Your task to perform on an android device: Open Maps and search for coffee Image 0: 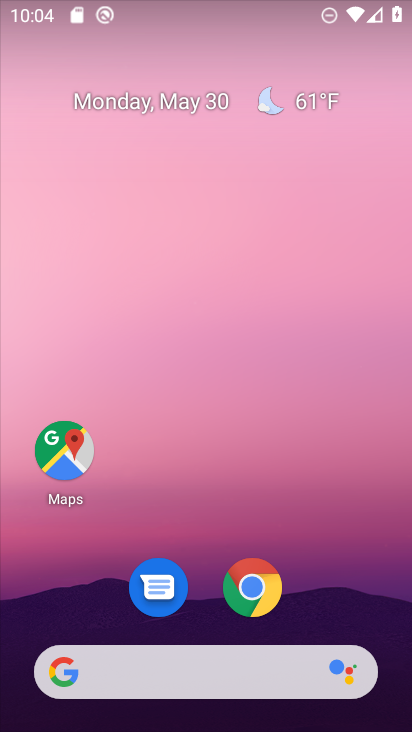
Step 0: drag from (235, 636) to (157, 42)
Your task to perform on an android device: Open Maps and search for coffee Image 1: 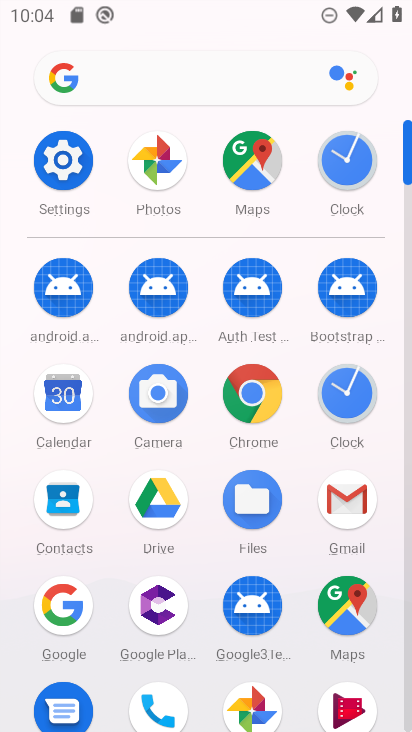
Step 1: click (356, 594)
Your task to perform on an android device: Open Maps and search for coffee Image 2: 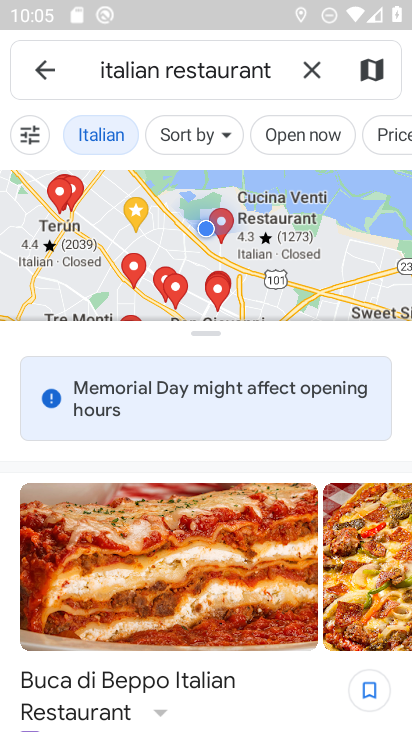
Step 2: click (309, 65)
Your task to perform on an android device: Open Maps and search for coffee Image 3: 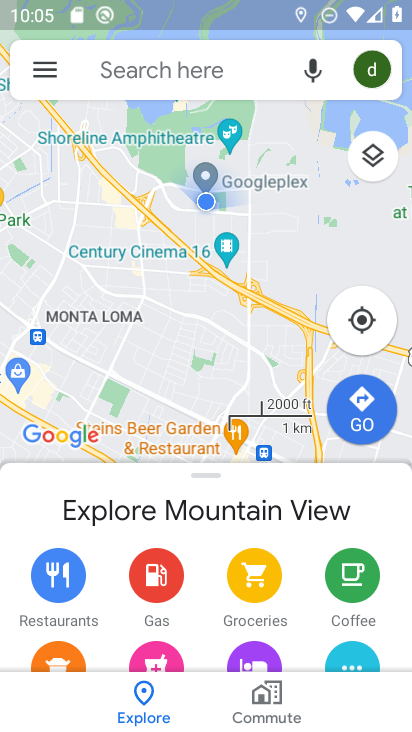
Step 3: click (133, 75)
Your task to perform on an android device: Open Maps and search for coffee Image 4: 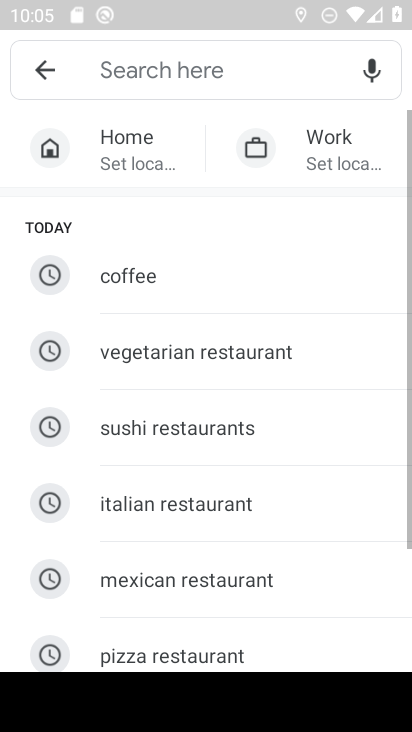
Step 4: click (139, 281)
Your task to perform on an android device: Open Maps and search for coffee Image 5: 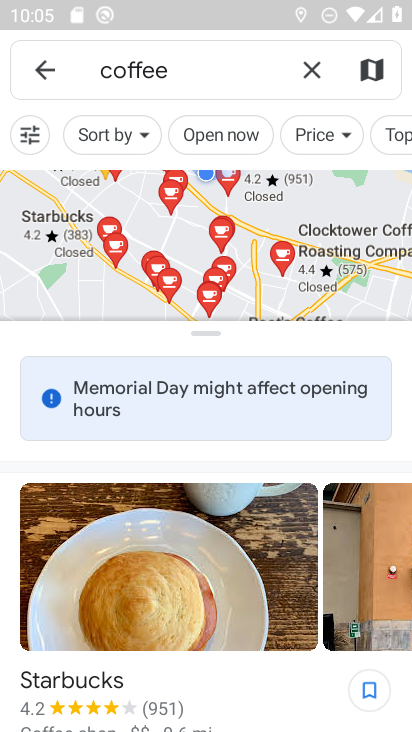
Step 5: task complete